Your task to perform on an android device: Go to internet settings Image 0: 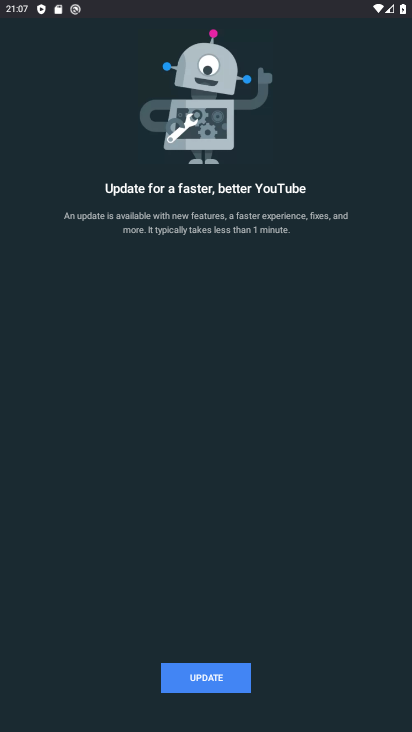
Step 0: press home button
Your task to perform on an android device: Go to internet settings Image 1: 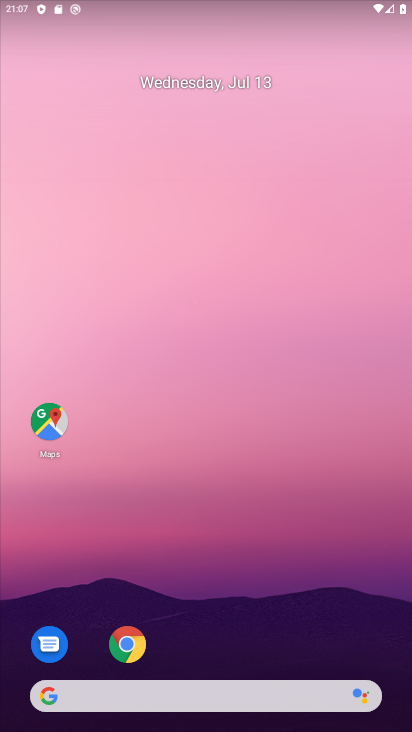
Step 1: drag from (258, 621) to (234, 144)
Your task to perform on an android device: Go to internet settings Image 2: 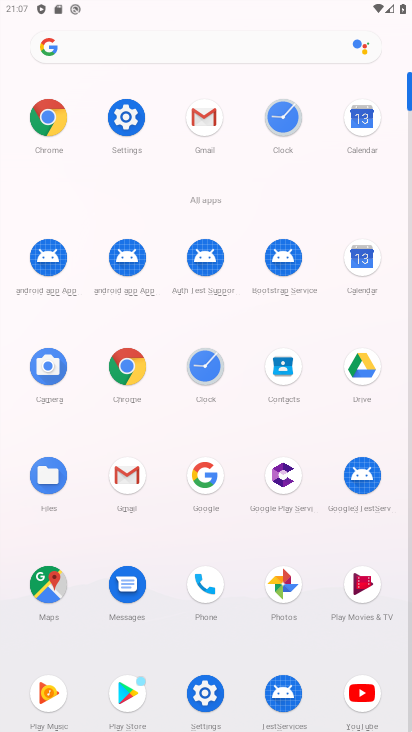
Step 2: click (130, 131)
Your task to perform on an android device: Go to internet settings Image 3: 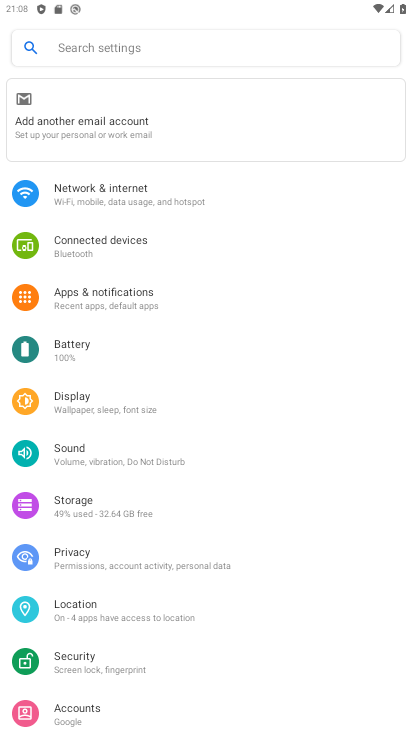
Step 3: click (152, 196)
Your task to perform on an android device: Go to internet settings Image 4: 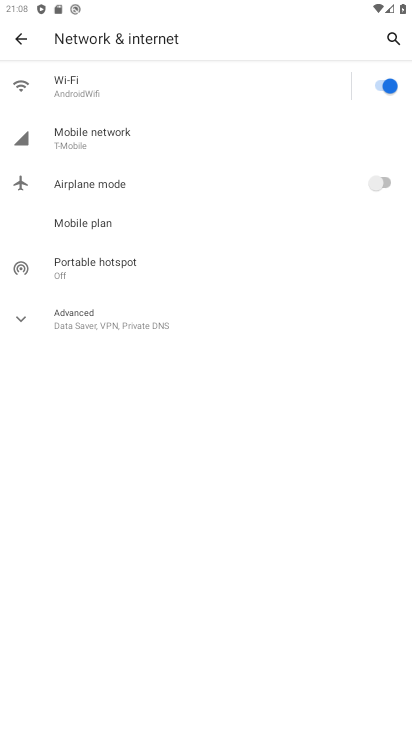
Step 4: task complete